Your task to perform on an android device: Search for sushi restaurants on Maps Image 0: 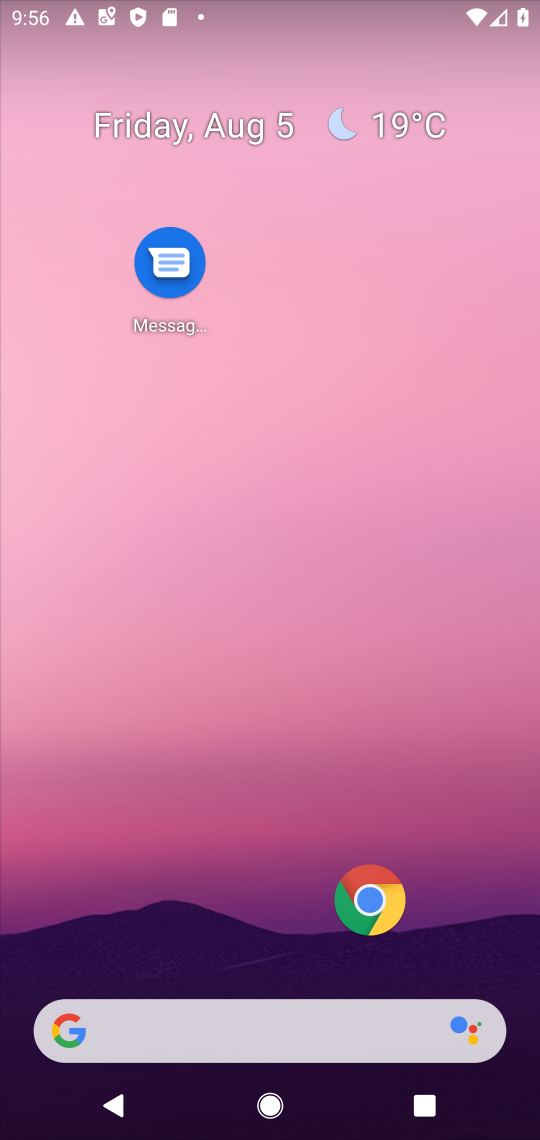
Step 0: drag from (237, 913) to (286, 74)
Your task to perform on an android device: Search for sushi restaurants on Maps Image 1: 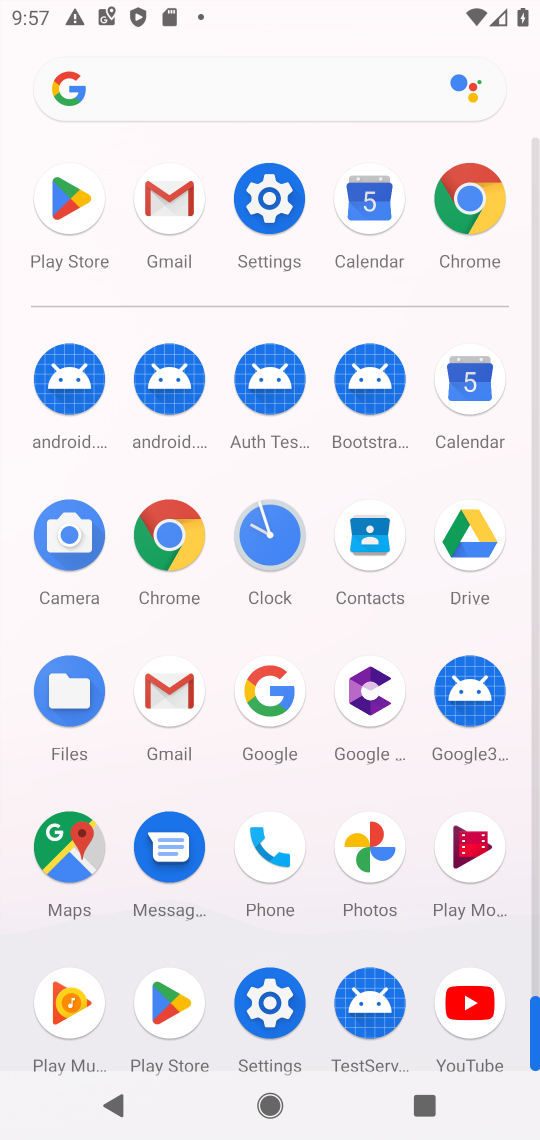
Step 1: click (58, 825)
Your task to perform on an android device: Search for sushi restaurants on Maps Image 2: 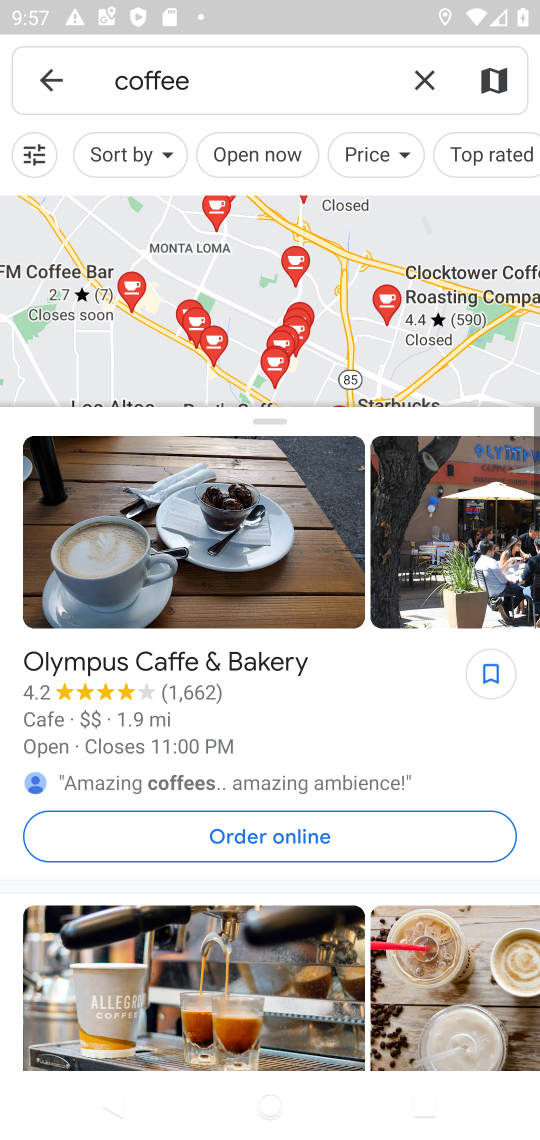
Step 2: click (417, 69)
Your task to perform on an android device: Search for sushi restaurants on Maps Image 3: 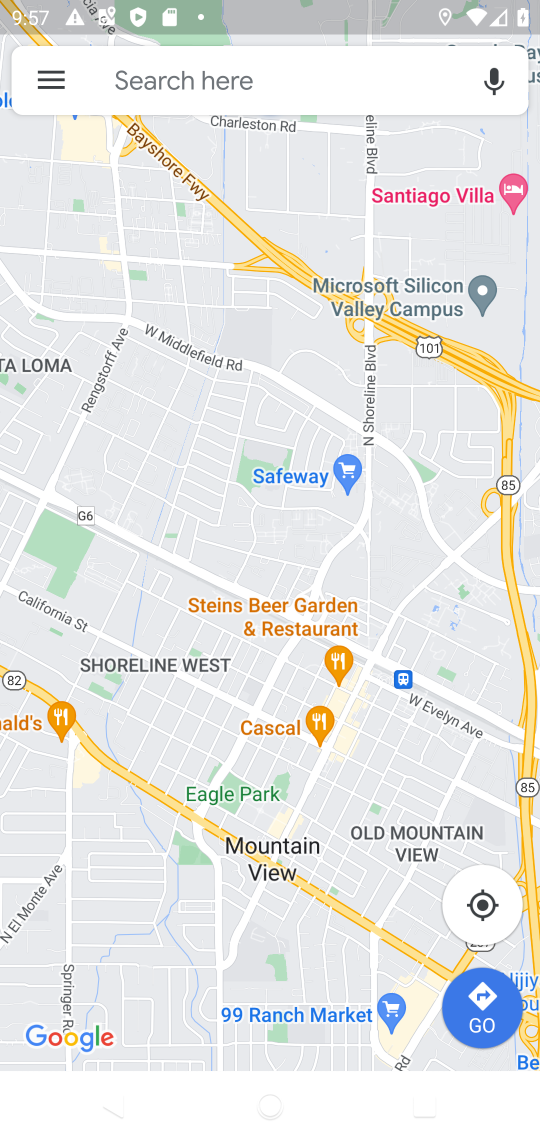
Step 3: click (156, 90)
Your task to perform on an android device: Search for sushi restaurants on Maps Image 4: 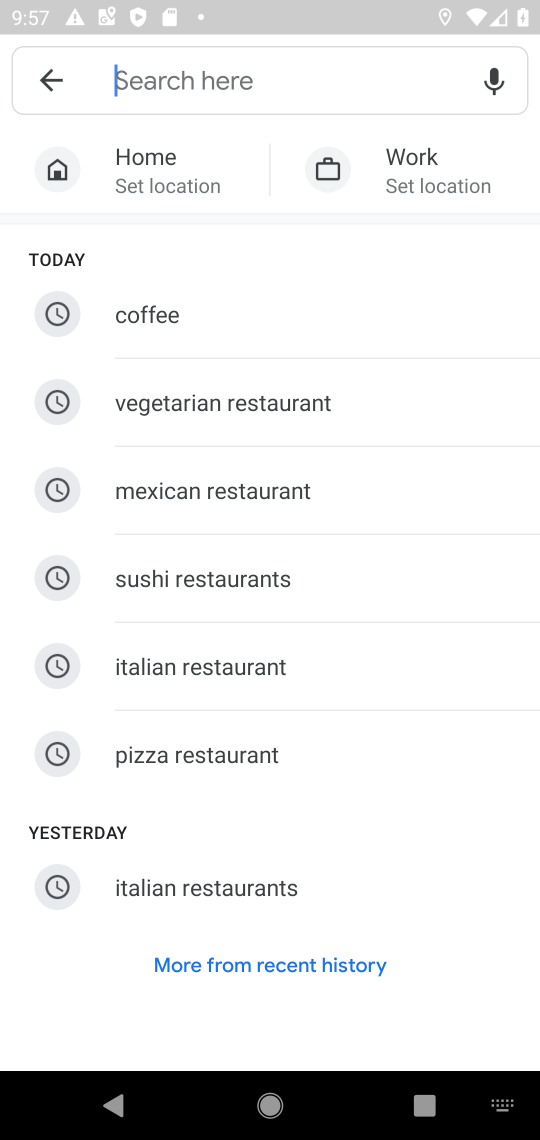
Step 4: type " sushi restaurants"
Your task to perform on an android device: Search for sushi restaurants on Maps Image 5: 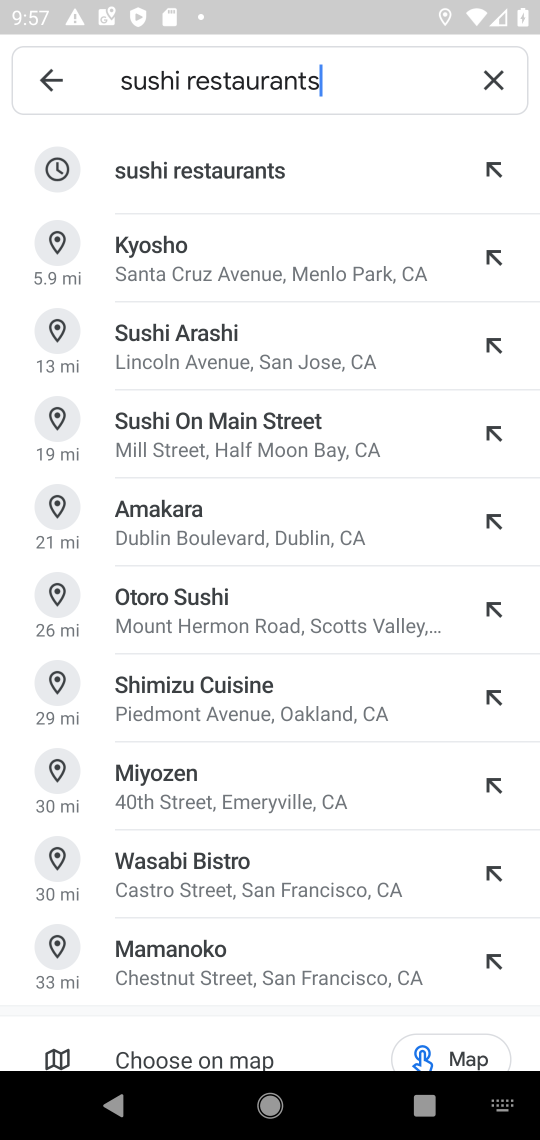
Step 5: click (197, 158)
Your task to perform on an android device: Search for sushi restaurants on Maps Image 6: 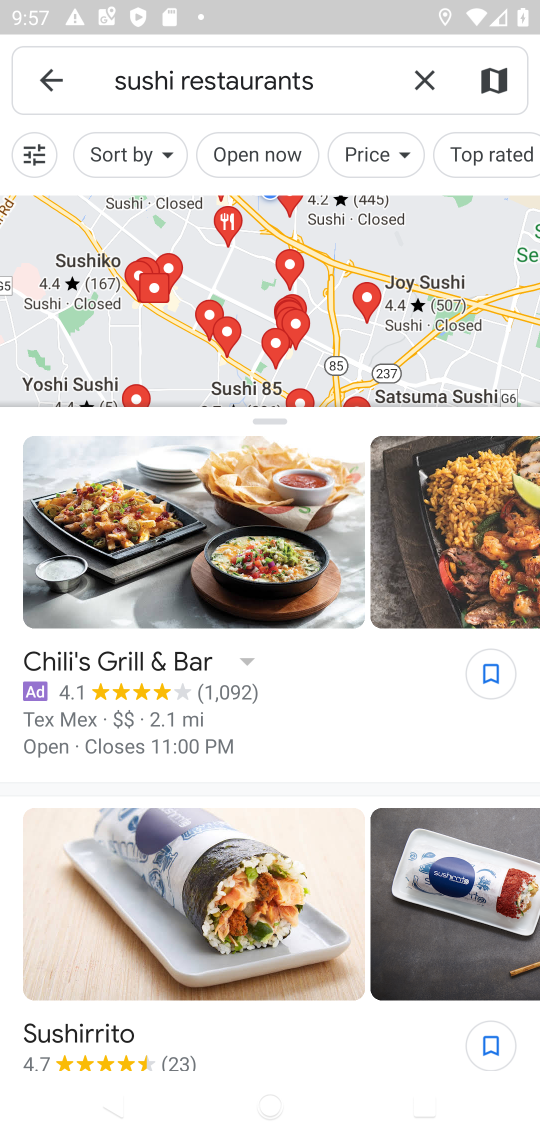
Step 6: task complete